Your task to perform on an android device: What's the weather going to be this weekend? Image 0: 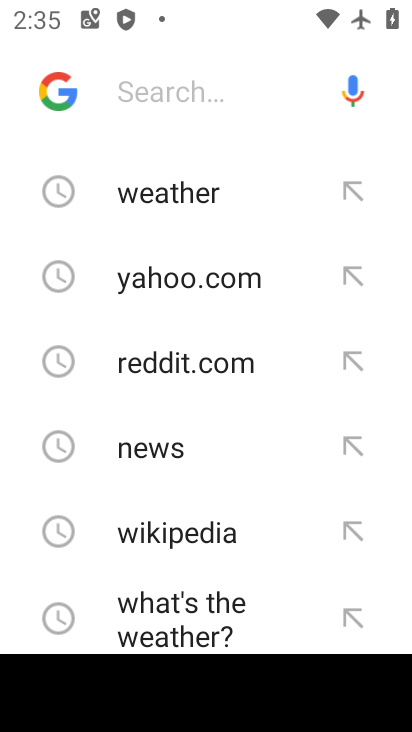
Step 0: press home button
Your task to perform on an android device: What's the weather going to be this weekend? Image 1: 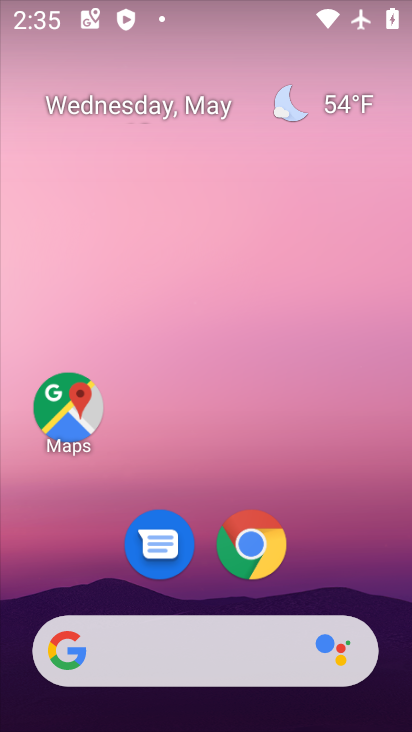
Step 1: click (220, 634)
Your task to perform on an android device: What's the weather going to be this weekend? Image 2: 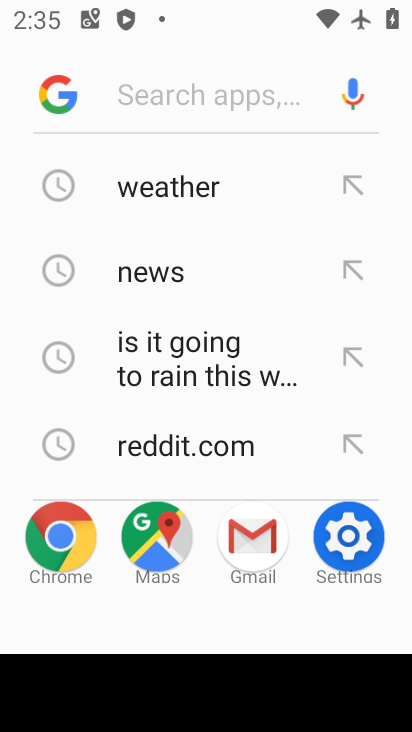
Step 2: click (115, 176)
Your task to perform on an android device: What's the weather going to be this weekend? Image 3: 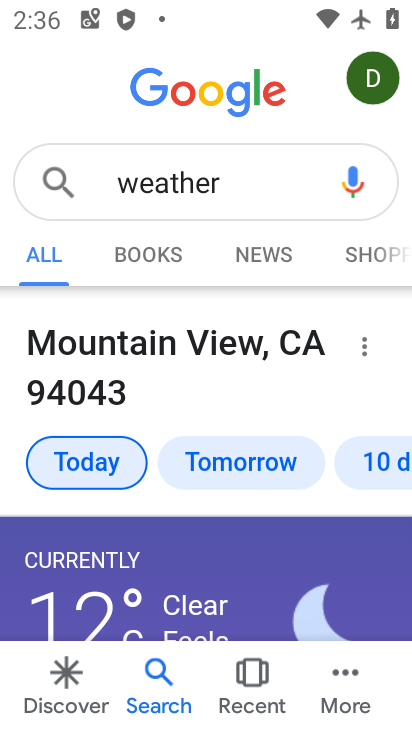
Step 3: click (364, 463)
Your task to perform on an android device: What's the weather going to be this weekend? Image 4: 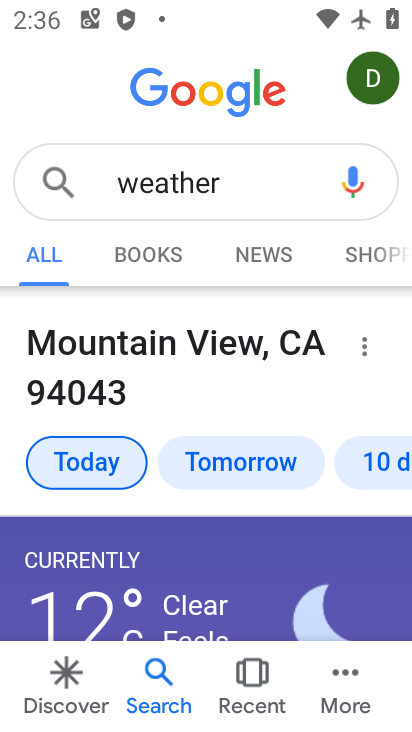
Step 4: click (364, 463)
Your task to perform on an android device: What's the weather going to be this weekend? Image 5: 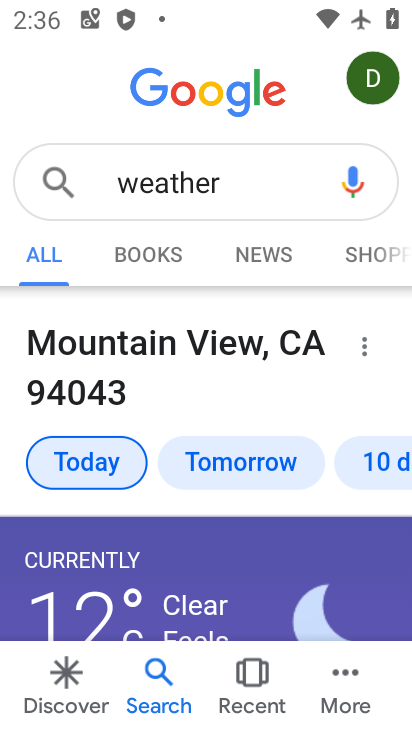
Step 5: click (364, 463)
Your task to perform on an android device: What's the weather going to be this weekend? Image 6: 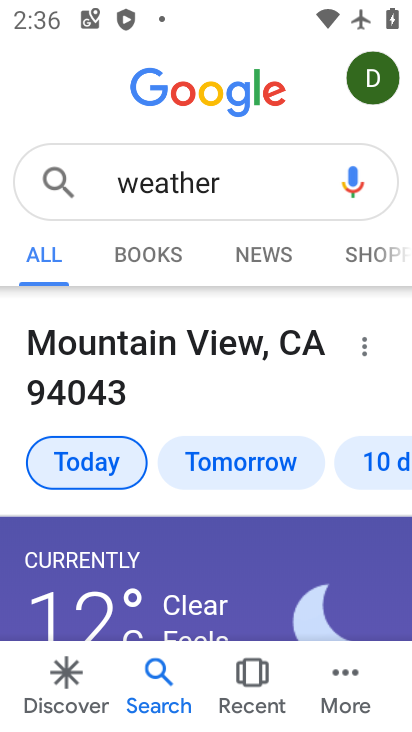
Step 6: click (364, 463)
Your task to perform on an android device: What's the weather going to be this weekend? Image 7: 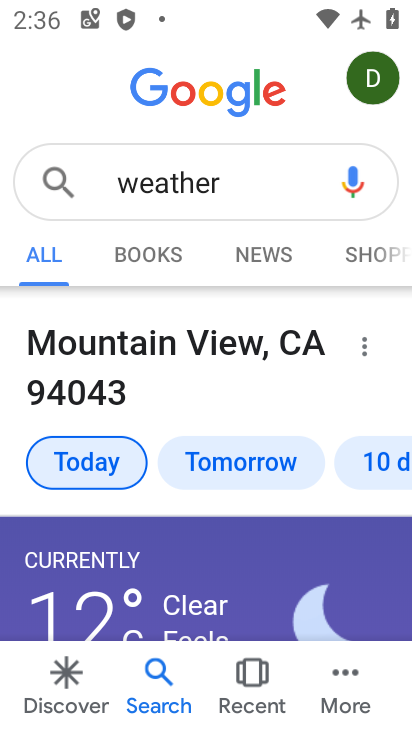
Step 7: click (364, 463)
Your task to perform on an android device: What's the weather going to be this weekend? Image 8: 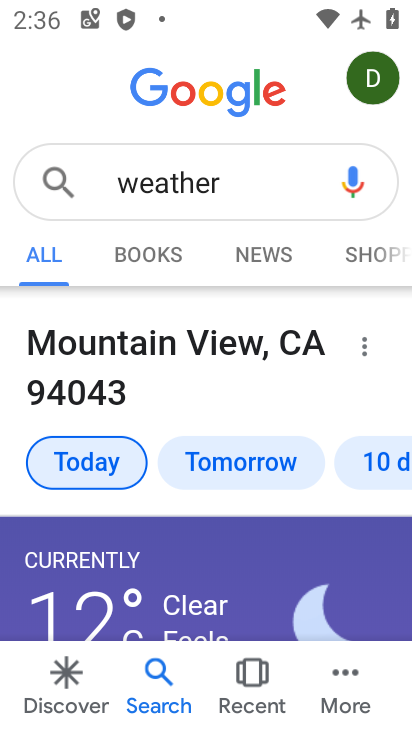
Step 8: click (364, 463)
Your task to perform on an android device: What's the weather going to be this weekend? Image 9: 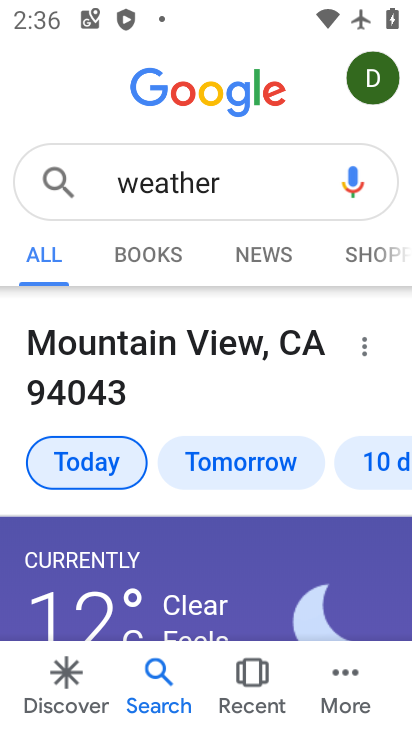
Step 9: click (374, 465)
Your task to perform on an android device: What's the weather going to be this weekend? Image 10: 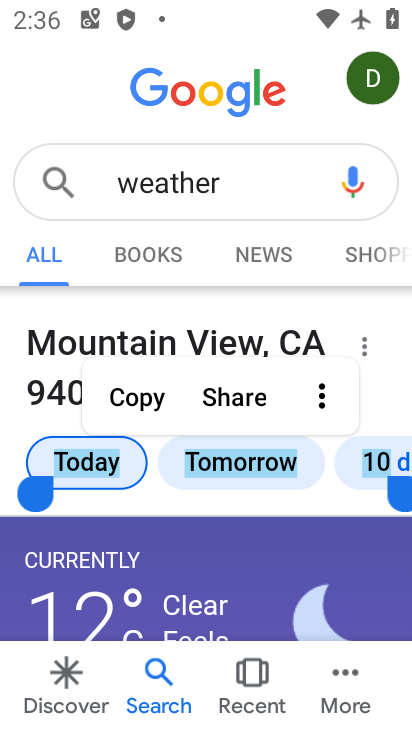
Step 10: click (302, 494)
Your task to perform on an android device: What's the weather going to be this weekend? Image 11: 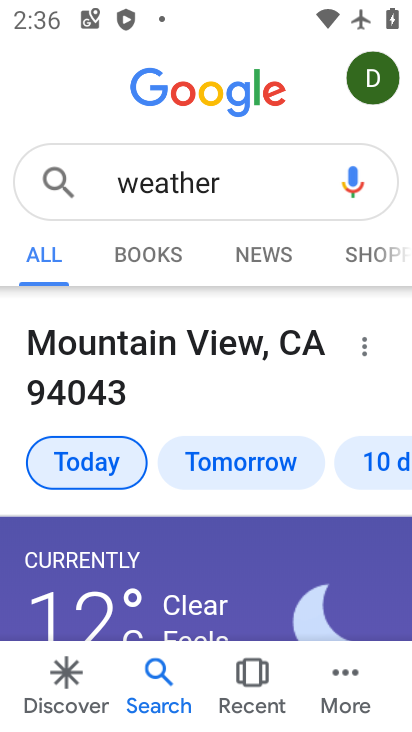
Step 11: click (384, 464)
Your task to perform on an android device: What's the weather going to be this weekend? Image 12: 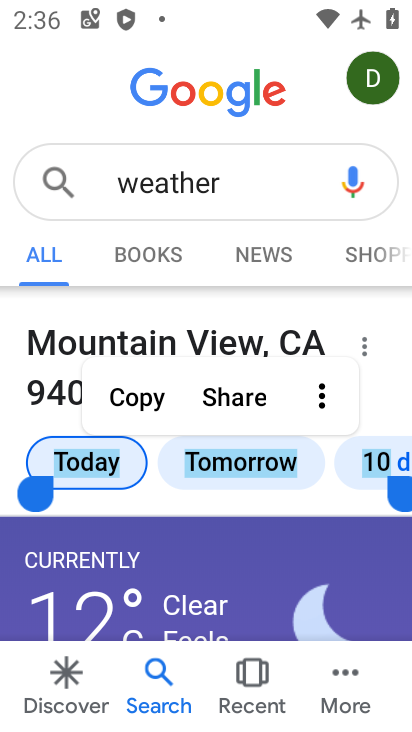
Step 12: task complete